Your task to perform on an android device: Open the calendar app, open the side menu, and click the "Day" option Image 0: 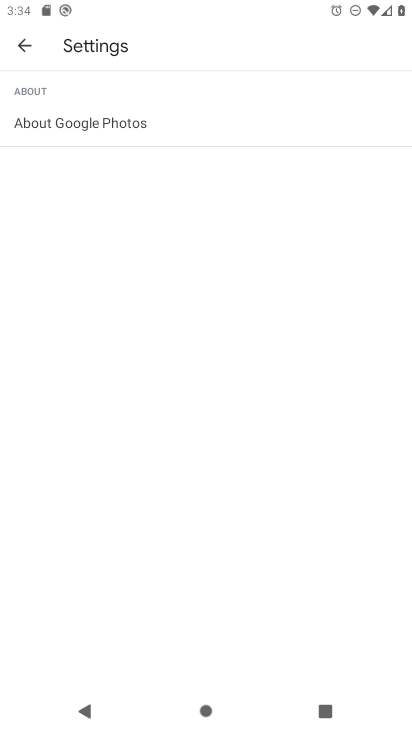
Step 0: press home button
Your task to perform on an android device: Open the calendar app, open the side menu, and click the "Day" option Image 1: 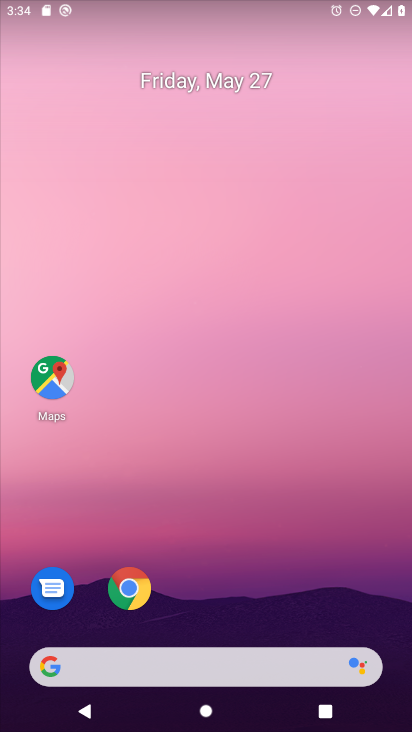
Step 1: drag from (333, 556) to (199, 67)
Your task to perform on an android device: Open the calendar app, open the side menu, and click the "Day" option Image 2: 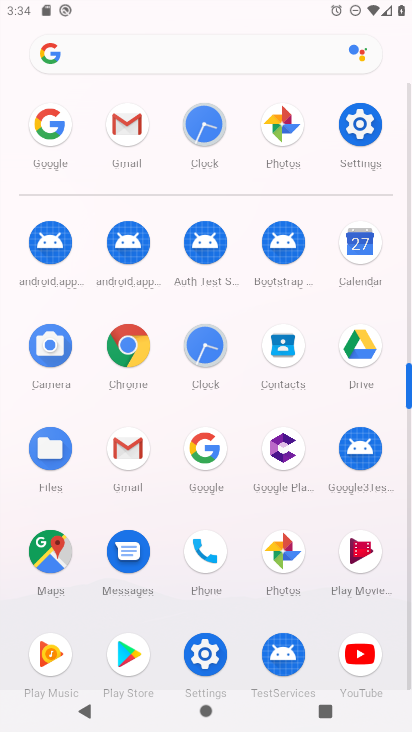
Step 2: click (355, 268)
Your task to perform on an android device: Open the calendar app, open the side menu, and click the "Day" option Image 3: 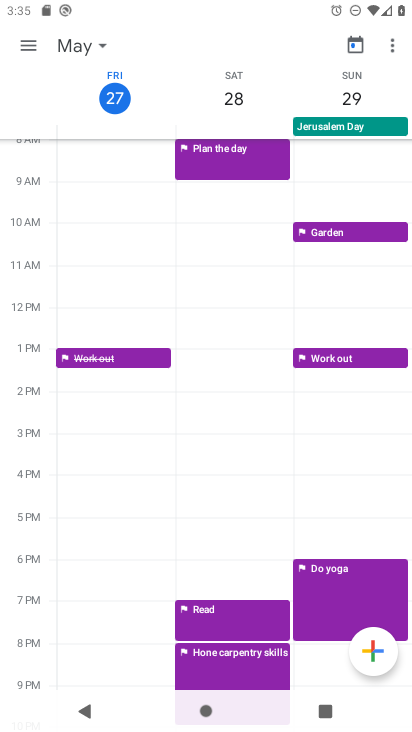
Step 3: click (37, 46)
Your task to perform on an android device: Open the calendar app, open the side menu, and click the "Day" option Image 4: 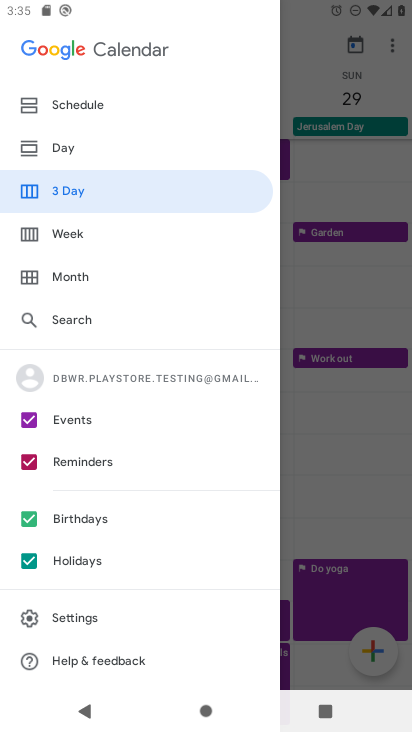
Step 4: click (70, 146)
Your task to perform on an android device: Open the calendar app, open the side menu, and click the "Day" option Image 5: 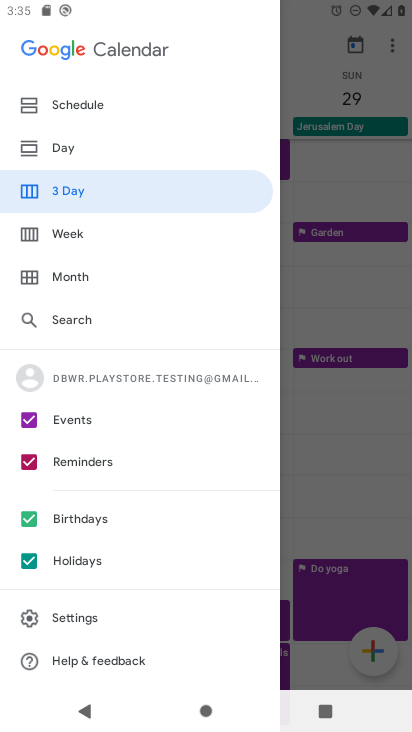
Step 5: click (99, 153)
Your task to perform on an android device: Open the calendar app, open the side menu, and click the "Day" option Image 6: 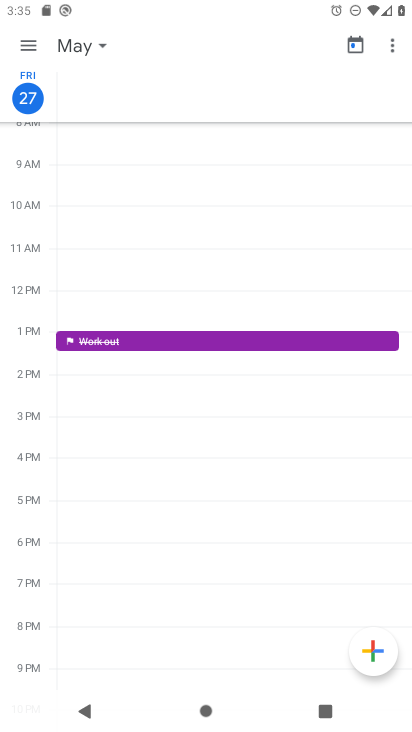
Step 6: task complete